Your task to perform on an android device: Go to display settings Image 0: 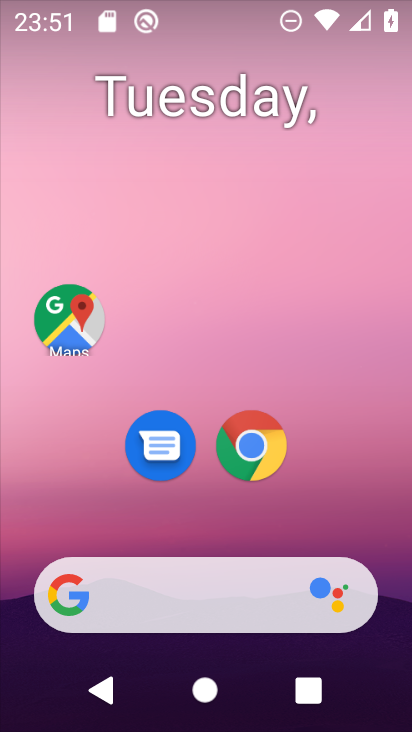
Step 0: drag from (296, 473) to (319, 149)
Your task to perform on an android device: Go to display settings Image 1: 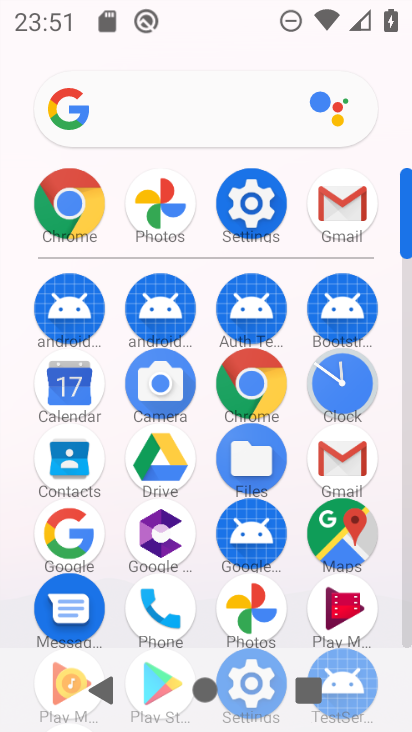
Step 1: click (250, 210)
Your task to perform on an android device: Go to display settings Image 2: 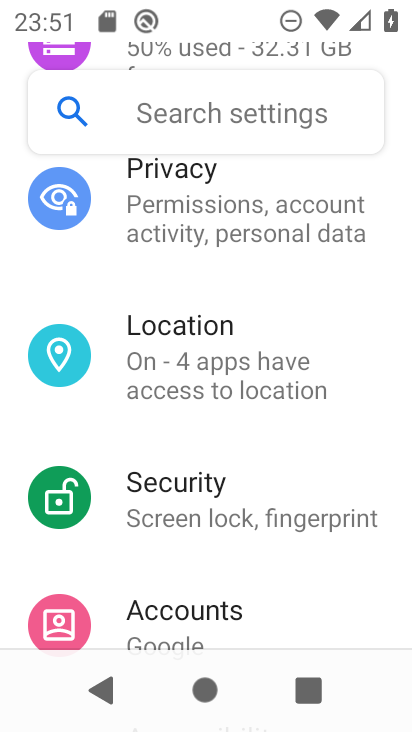
Step 2: drag from (242, 343) to (242, 456)
Your task to perform on an android device: Go to display settings Image 3: 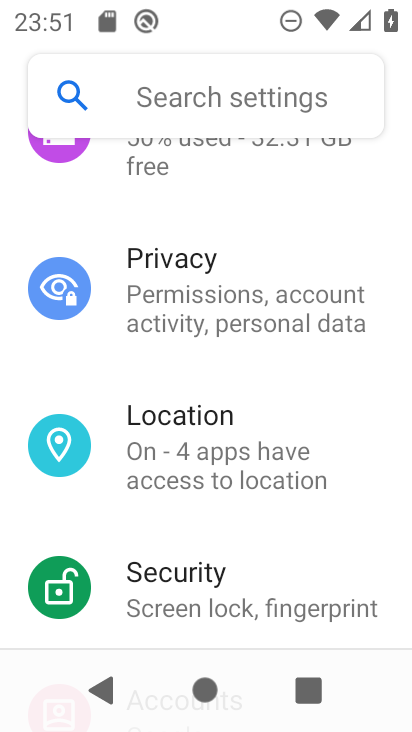
Step 3: drag from (233, 319) to (243, 472)
Your task to perform on an android device: Go to display settings Image 4: 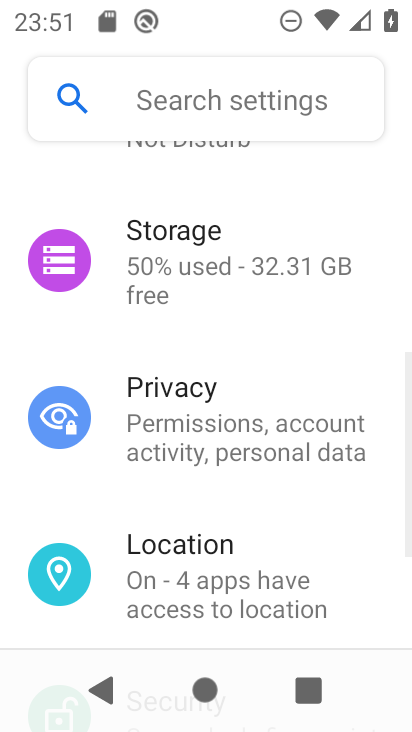
Step 4: drag from (252, 300) to (255, 433)
Your task to perform on an android device: Go to display settings Image 5: 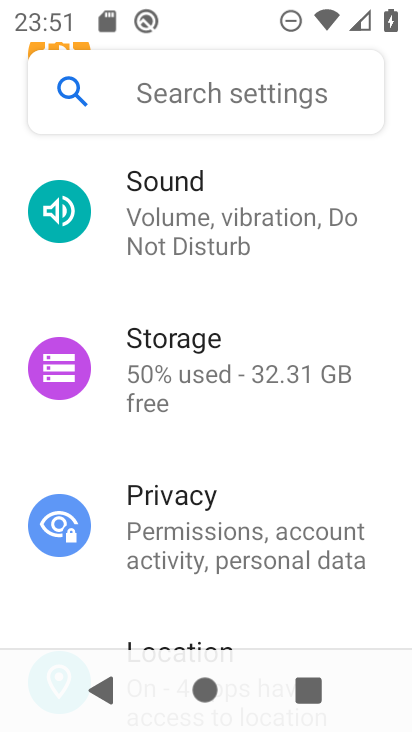
Step 5: drag from (239, 271) to (258, 477)
Your task to perform on an android device: Go to display settings Image 6: 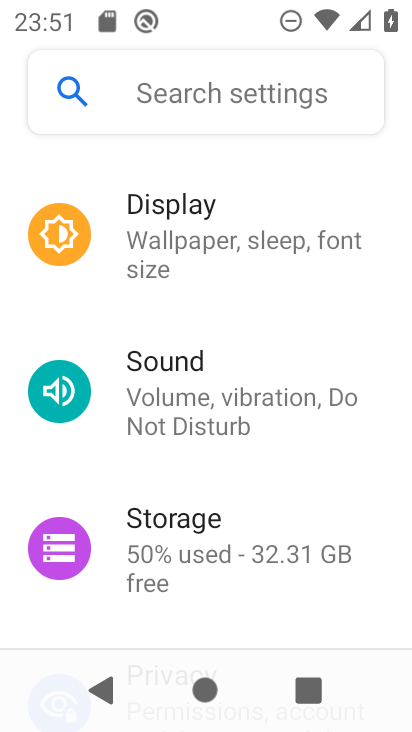
Step 6: click (218, 258)
Your task to perform on an android device: Go to display settings Image 7: 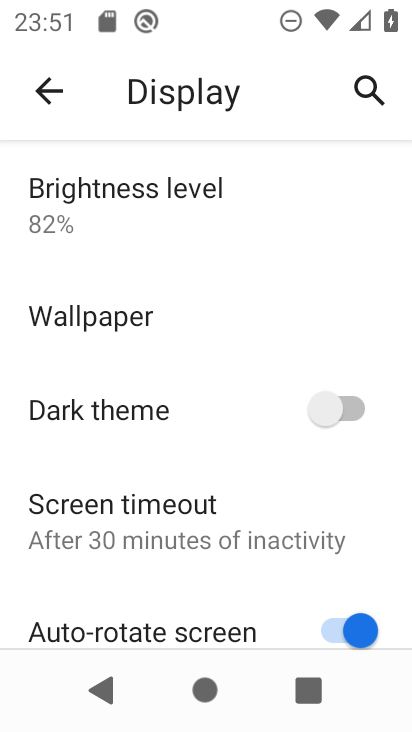
Step 7: task complete